Your task to perform on an android device: change the clock display to show seconds Image 0: 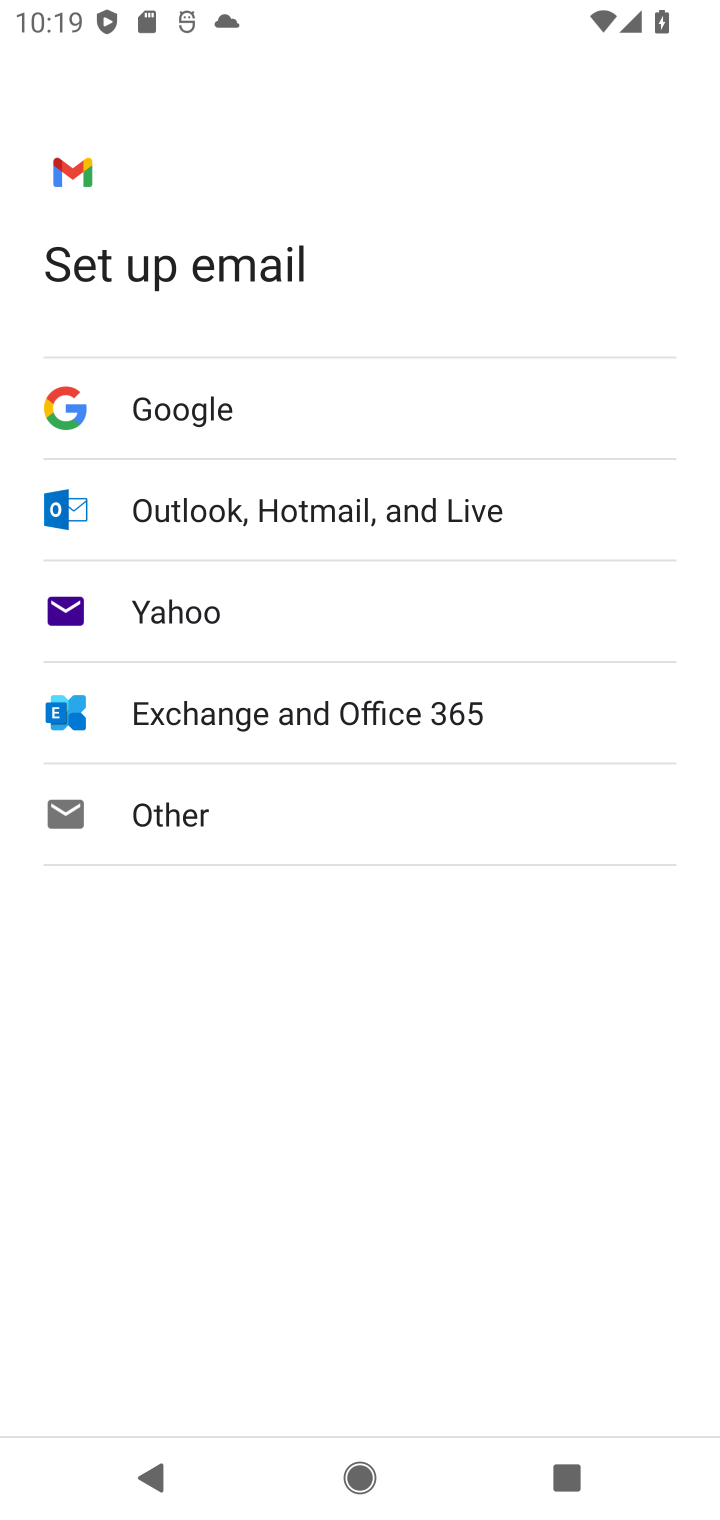
Step 0: press home button
Your task to perform on an android device: change the clock display to show seconds Image 1: 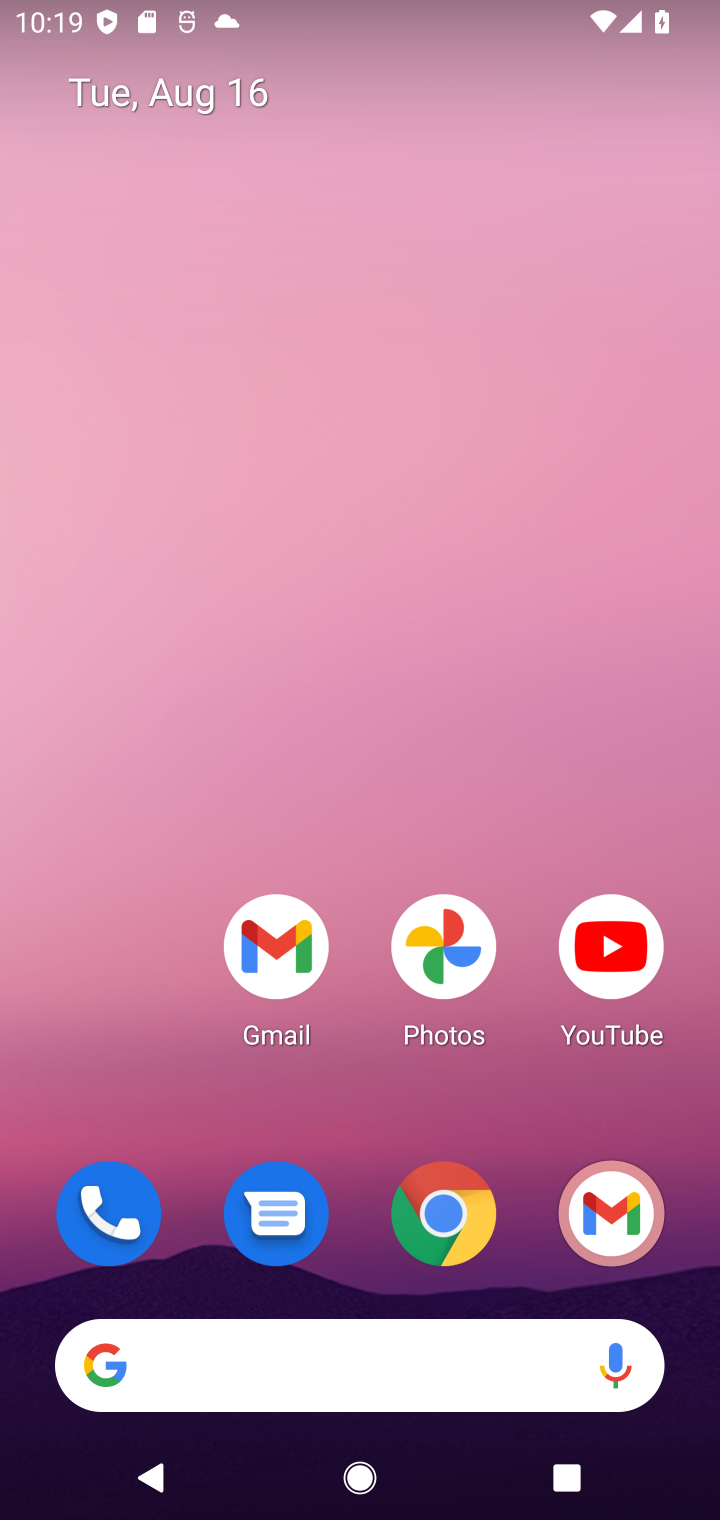
Step 1: drag from (342, 1237) to (372, 320)
Your task to perform on an android device: change the clock display to show seconds Image 2: 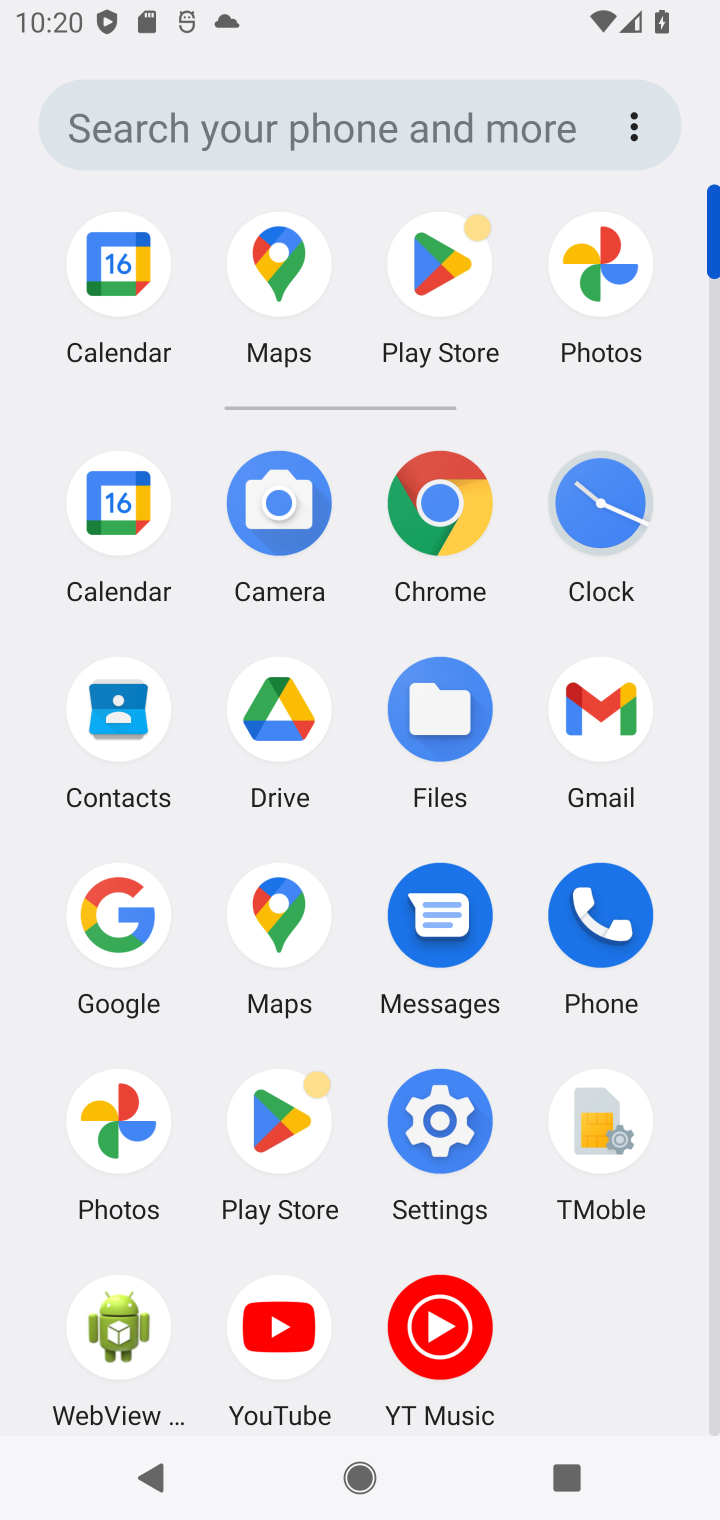
Step 2: click (587, 510)
Your task to perform on an android device: change the clock display to show seconds Image 3: 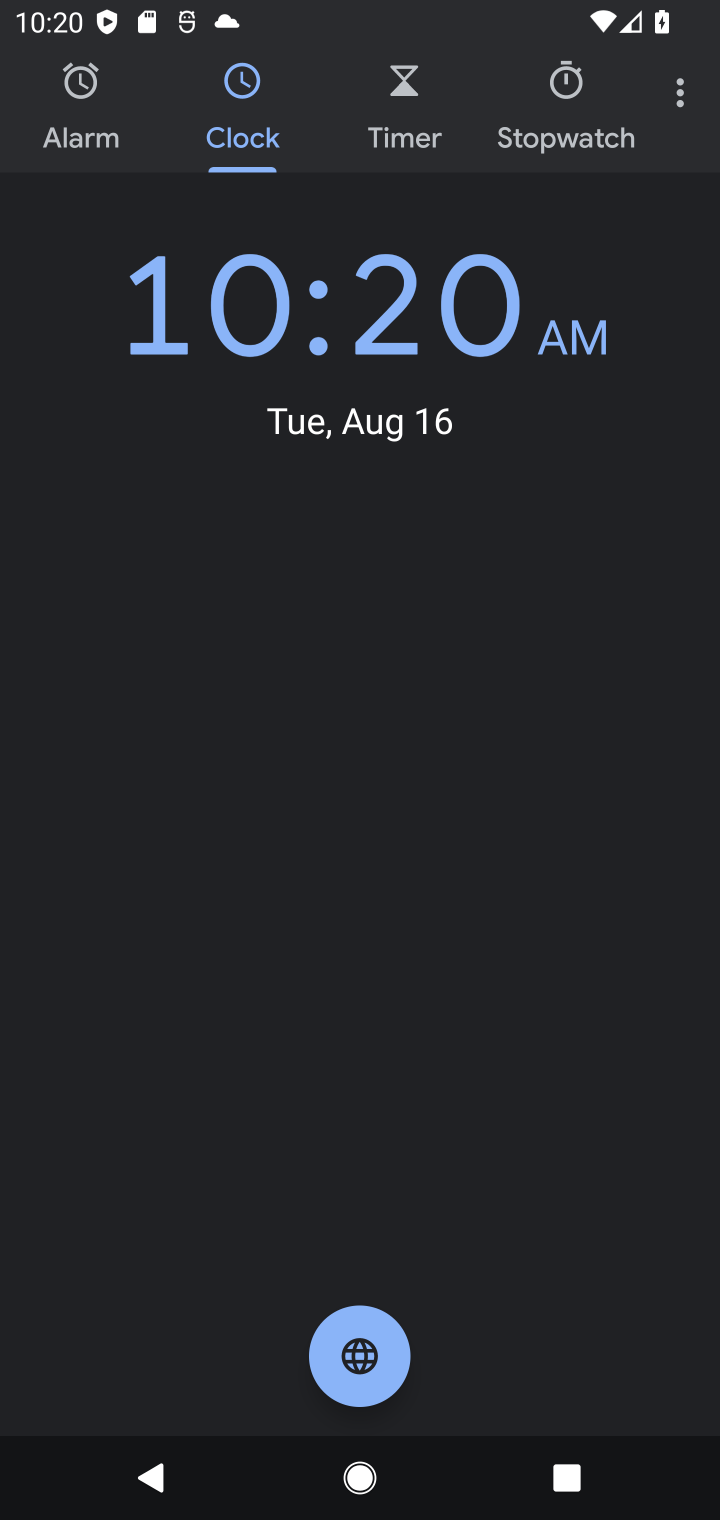
Step 3: click (684, 56)
Your task to perform on an android device: change the clock display to show seconds Image 4: 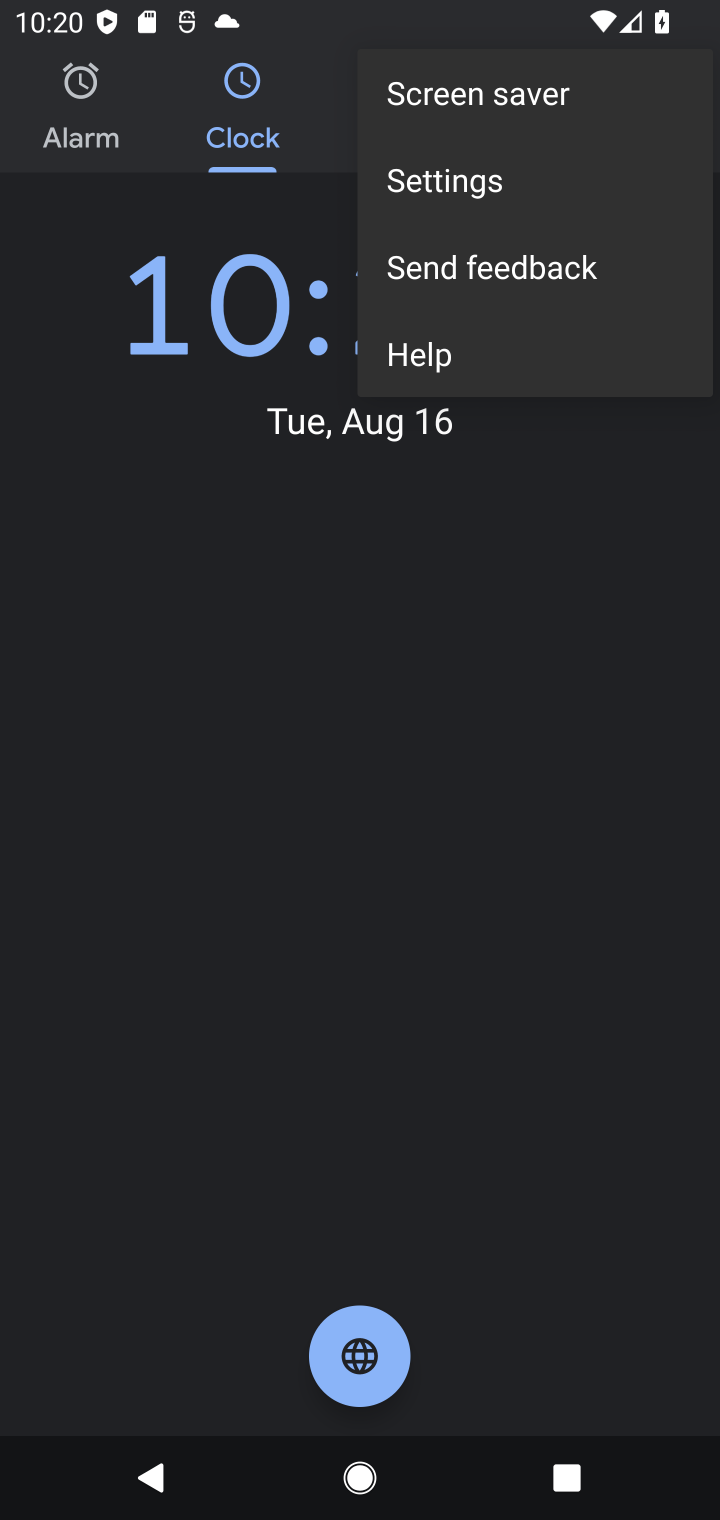
Step 4: click (480, 154)
Your task to perform on an android device: change the clock display to show seconds Image 5: 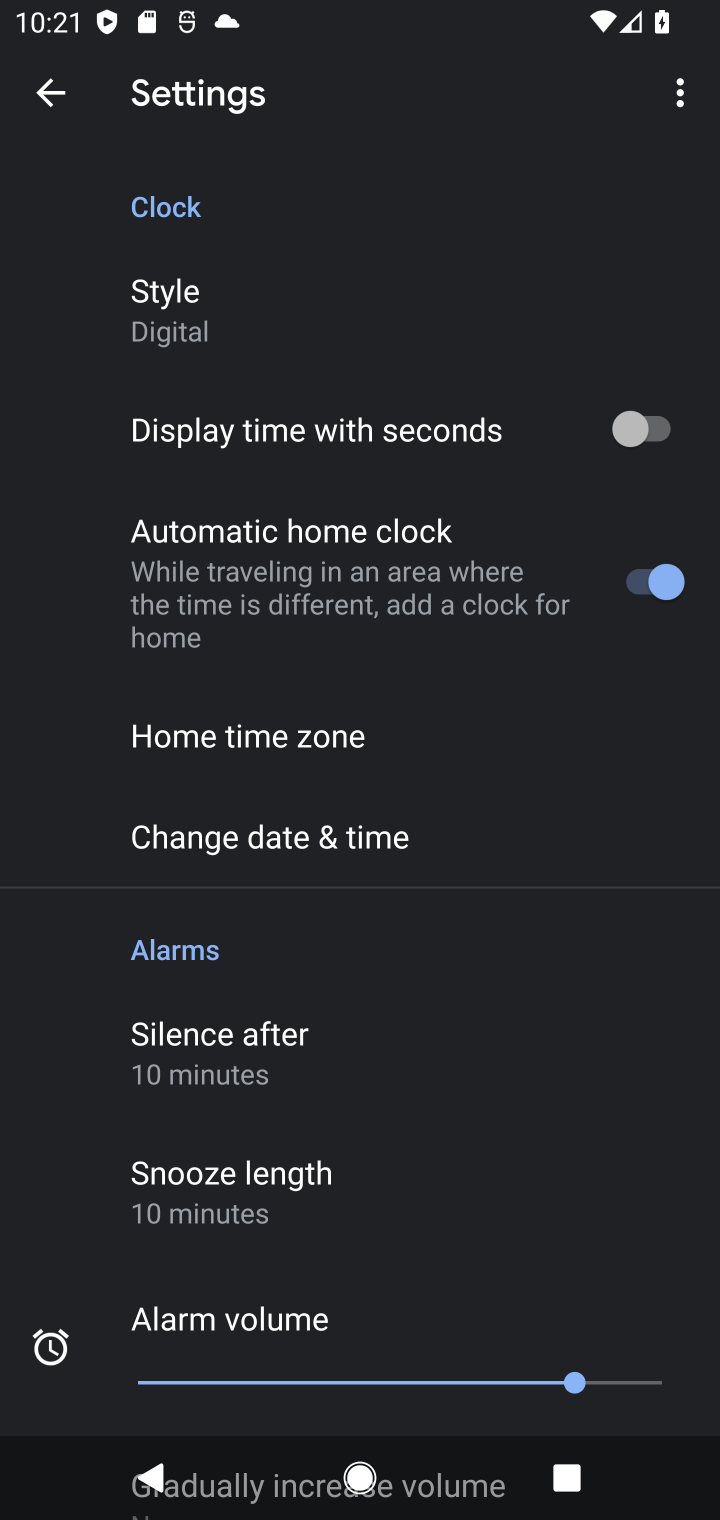
Step 5: click (644, 425)
Your task to perform on an android device: change the clock display to show seconds Image 6: 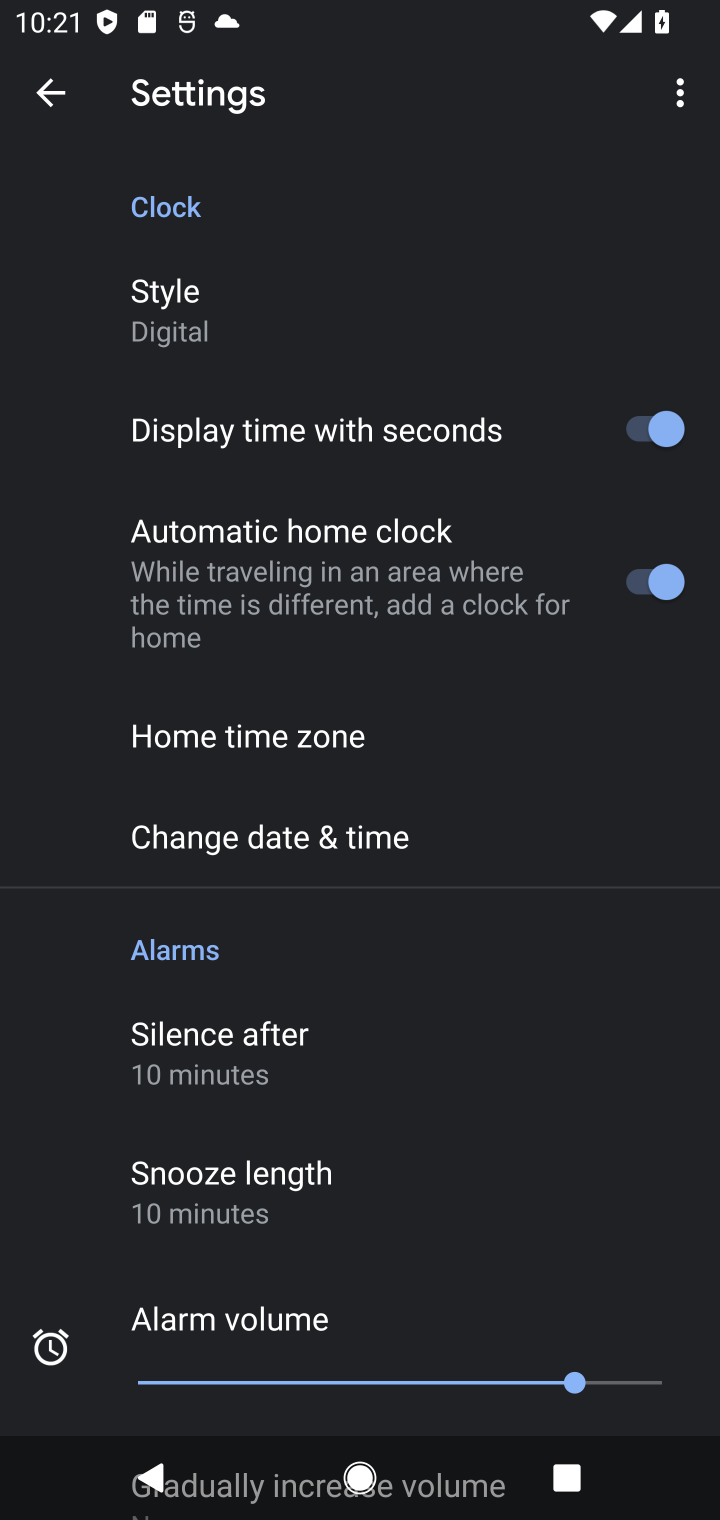
Step 6: task complete